Your task to perform on an android device: Clear the shopping cart on ebay. Search for "bose soundsport free" on ebay, select the first entry, add it to the cart, then select checkout. Image 0: 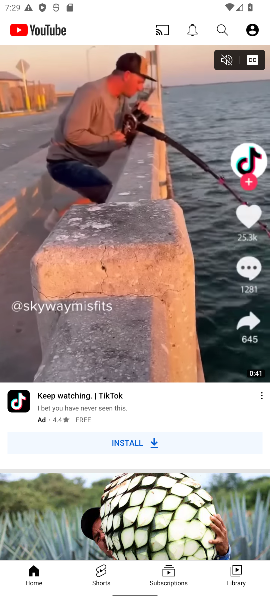
Step 0: press home button
Your task to perform on an android device: Clear the shopping cart on ebay. Search for "bose soundsport free" on ebay, select the first entry, add it to the cart, then select checkout. Image 1: 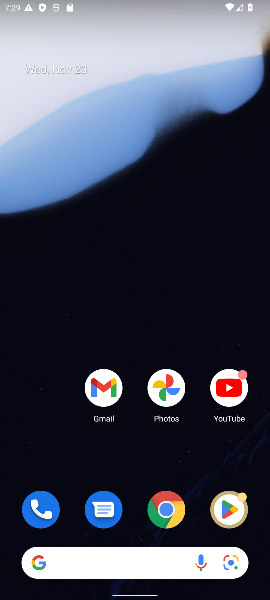
Step 1: click (169, 515)
Your task to perform on an android device: Clear the shopping cart on ebay. Search for "bose soundsport free" on ebay, select the first entry, add it to the cart, then select checkout. Image 2: 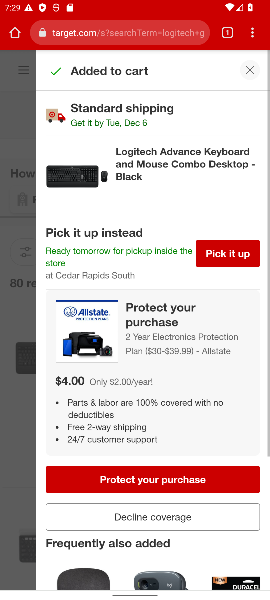
Step 2: click (127, 33)
Your task to perform on an android device: Clear the shopping cart on ebay. Search for "bose soundsport free" on ebay, select the first entry, add it to the cart, then select checkout. Image 3: 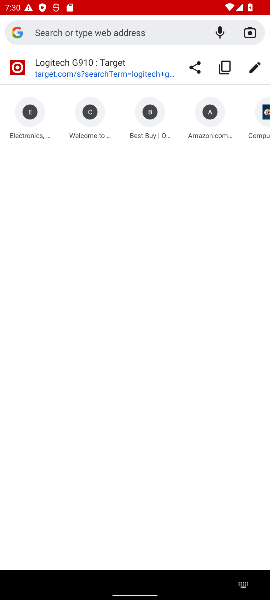
Step 3: type "ebay"
Your task to perform on an android device: Clear the shopping cart on ebay. Search for "bose soundsport free" on ebay, select the first entry, add it to the cart, then select checkout. Image 4: 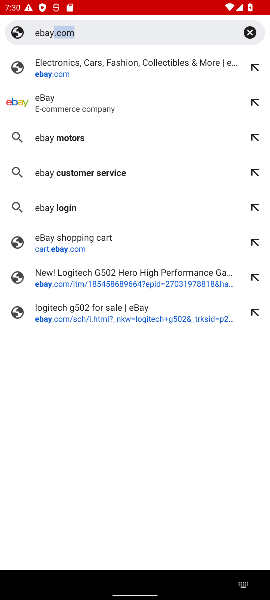
Step 4: click (103, 67)
Your task to perform on an android device: Clear the shopping cart on ebay. Search for "bose soundsport free" on ebay, select the first entry, add it to the cart, then select checkout. Image 5: 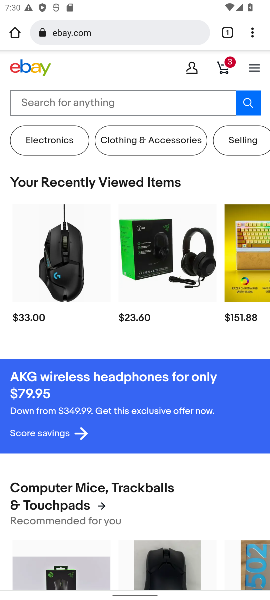
Step 5: click (222, 63)
Your task to perform on an android device: Clear the shopping cart on ebay. Search for "bose soundsport free" on ebay, select the first entry, add it to the cart, then select checkout. Image 6: 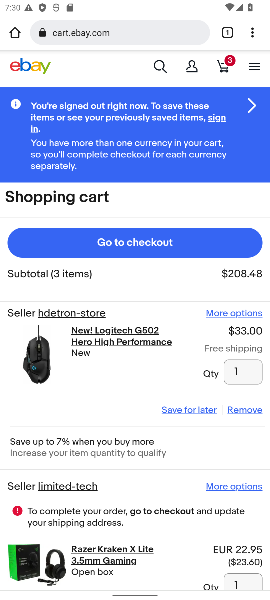
Step 6: click (241, 413)
Your task to perform on an android device: Clear the shopping cart on ebay. Search for "bose soundsport free" on ebay, select the first entry, add it to the cart, then select checkout. Image 7: 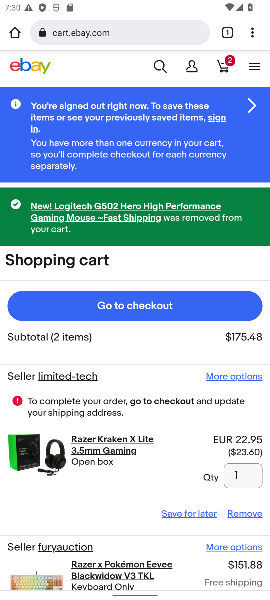
Step 7: click (241, 514)
Your task to perform on an android device: Clear the shopping cart on ebay. Search for "bose soundsport free" on ebay, select the first entry, add it to the cart, then select checkout. Image 8: 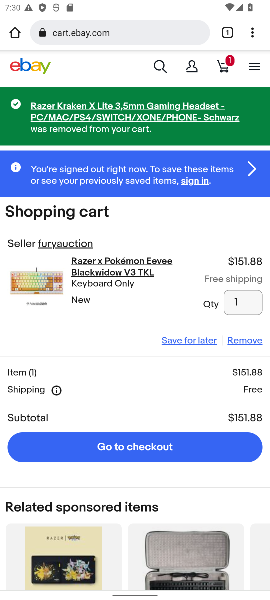
Step 8: click (241, 344)
Your task to perform on an android device: Clear the shopping cart on ebay. Search for "bose soundsport free" on ebay, select the first entry, add it to the cart, then select checkout. Image 9: 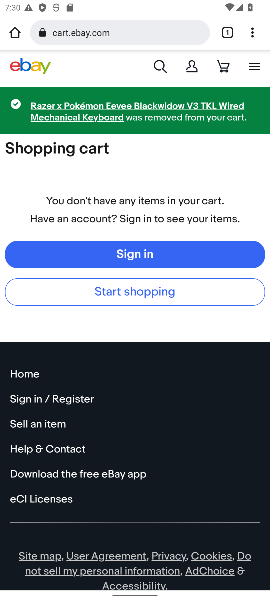
Step 9: click (159, 63)
Your task to perform on an android device: Clear the shopping cart on ebay. Search for "bose soundsport free" on ebay, select the first entry, add it to the cart, then select checkout. Image 10: 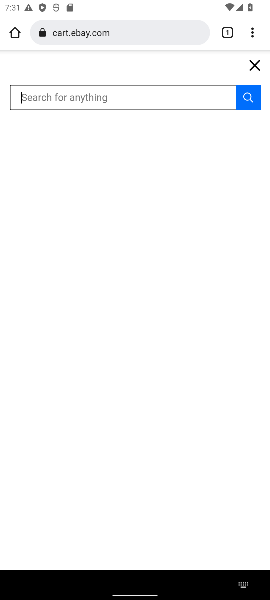
Step 10: type "bose soundsport free"
Your task to perform on an android device: Clear the shopping cart on ebay. Search for "bose soundsport free" on ebay, select the first entry, add it to the cart, then select checkout. Image 11: 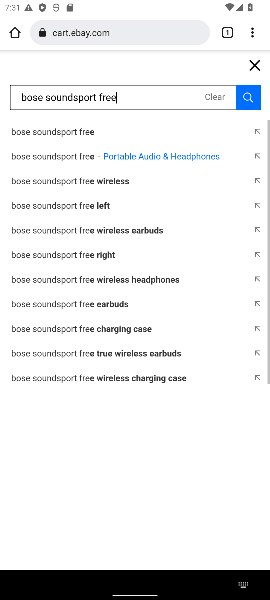
Step 11: click (201, 135)
Your task to perform on an android device: Clear the shopping cart on ebay. Search for "bose soundsport free" on ebay, select the first entry, add it to the cart, then select checkout. Image 12: 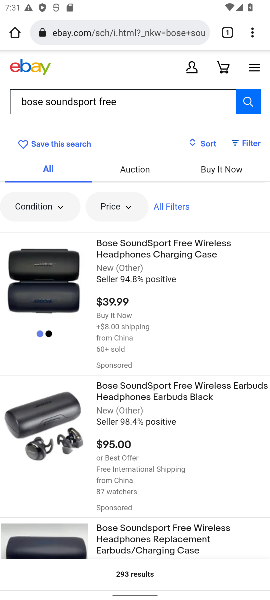
Step 12: click (197, 251)
Your task to perform on an android device: Clear the shopping cart on ebay. Search for "bose soundsport free" on ebay, select the first entry, add it to the cart, then select checkout. Image 13: 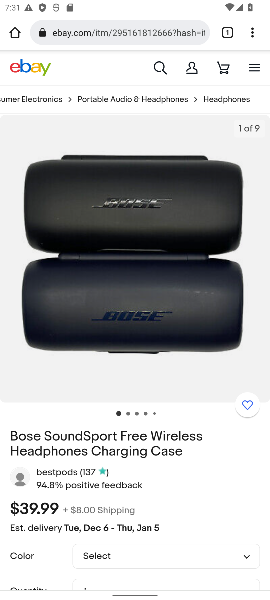
Step 13: drag from (120, 498) to (76, 218)
Your task to perform on an android device: Clear the shopping cart on ebay. Search for "bose soundsport free" on ebay, select the first entry, add it to the cart, then select checkout. Image 14: 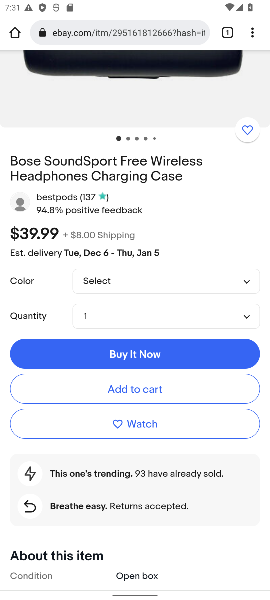
Step 14: click (146, 385)
Your task to perform on an android device: Clear the shopping cart on ebay. Search for "bose soundsport free" on ebay, select the first entry, add it to the cart, then select checkout. Image 15: 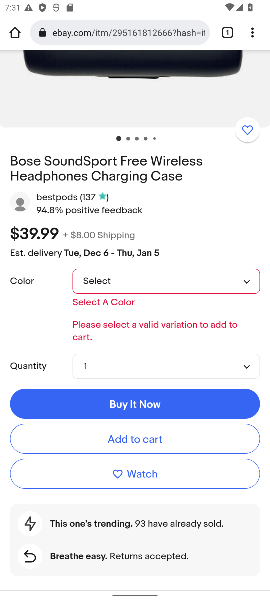
Step 15: click (107, 282)
Your task to perform on an android device: Clear the shopping cart on ebay. Search for "bose soundsport free" on ebay, select the first entry, add it to the cart, then select checkout. Image 16: 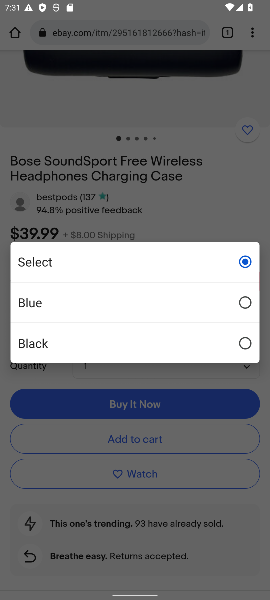
Step 16: click (124, 305)
Your task to perform on an android device: Clear the shopping cart on ebay. Search for "bose soundsport free" on ebay, select the first entry, add it to the cart, then select checkout. Image 17: 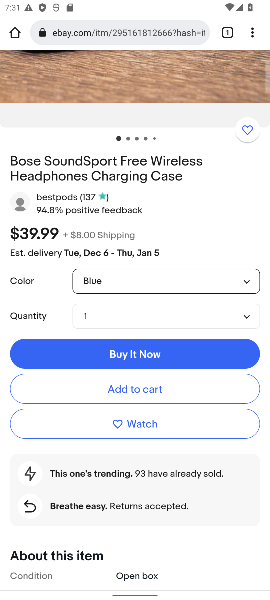
Step 17: click (140, 391)
Your task to perform on an android device: Clear the shopping cart on ebay. Search for "bose soundsport free" on ebay, select the first entry, add it to the cart, then select checkout. Image 18: 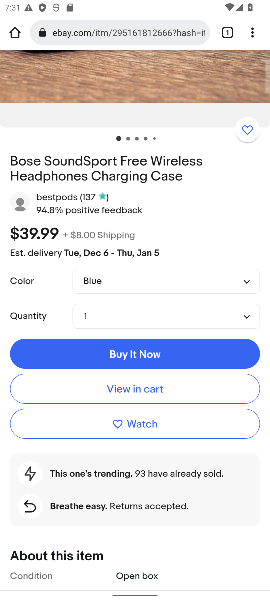
Step 18: click (189, 383)
Your task to perform on an android device: Clear the shopping cart on ebay. Search for "bose soundsport free" on ebay, select the first entry, add it to the cart, then select checkout. Image 19: 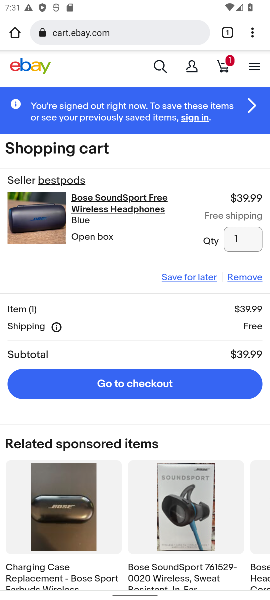
Step 19: click (176, 386)
Your task to perform on an android device: Clear the shopping cart on ebay. Search for "bose soundsport free" on ebay, select the first entry, add it to the cart, then select checkout. Image 20: 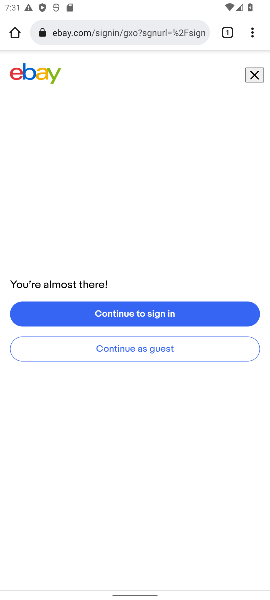
Step 20: task complete